Your task to perform on an android device: Go to CNN.com Image 0: 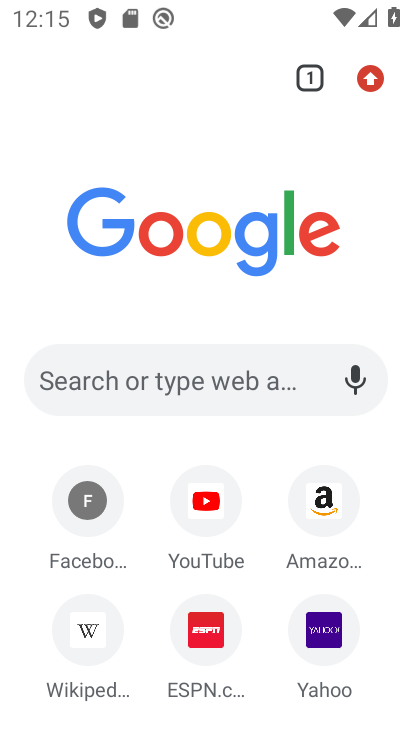
Step 0: click (186, 384)
Your task to perform on an android device: Go to CNN.com Image 1: 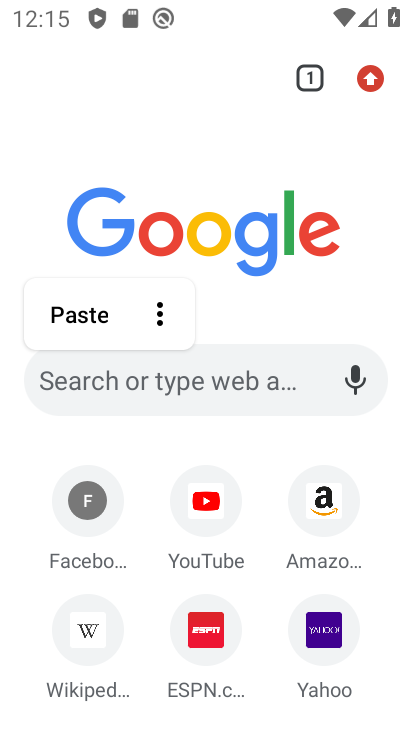
Step 1: type "cnn.com"
Your task to perform on an android device: Go to CNN.com Image 2: 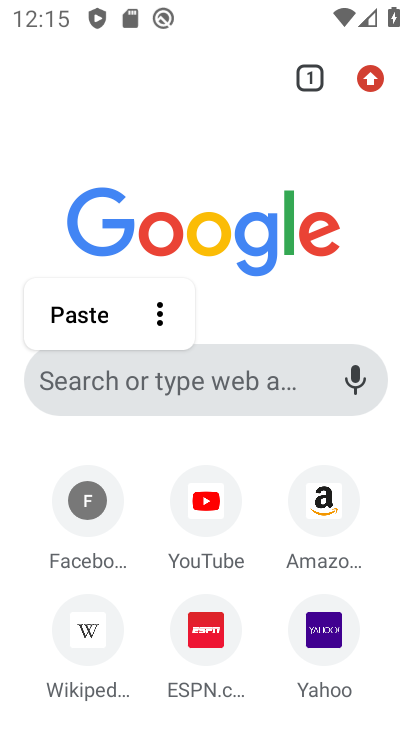
Step 2: click (252, 385)
Your task to perform on an android device: Go to CNN.com Image 3: 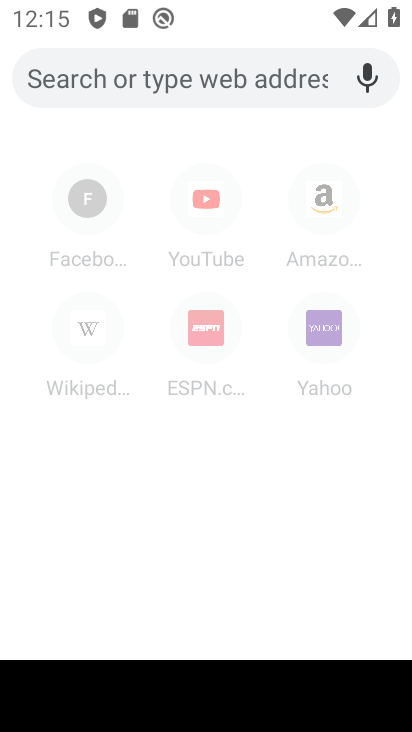
Step 3: click (178, 87)
Your task to perform on an android device: Go to CNN.com Image 4: 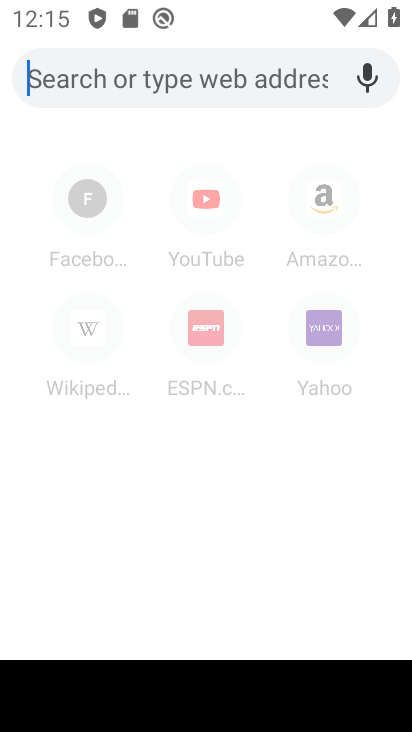
Step 4: type "cnn.com"
Your task to perform on an android device: Go to CNN.com Image 5: 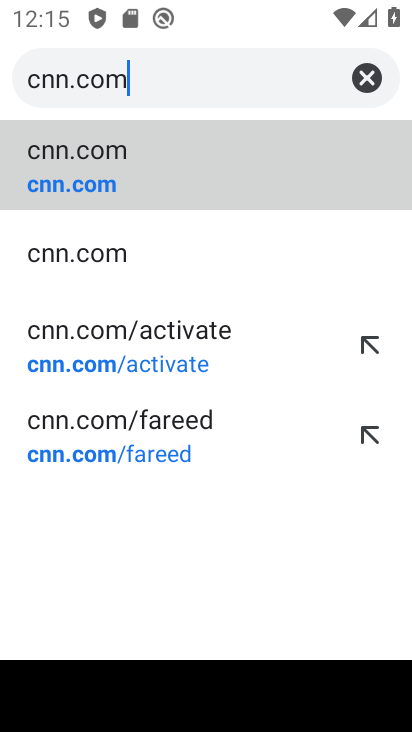
Step 5: click (217, 165)
Your task to perform on an android device: Go to CNN.com Image 6: 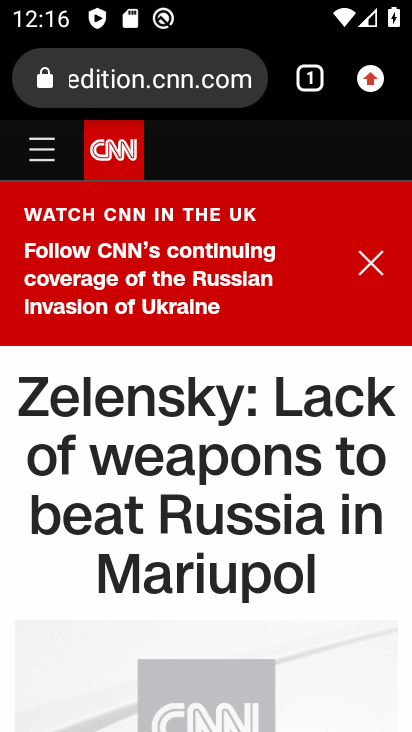
Step 6: task complete